Your task to perform on an android device: delete browsing data in the chrome app Image 0: 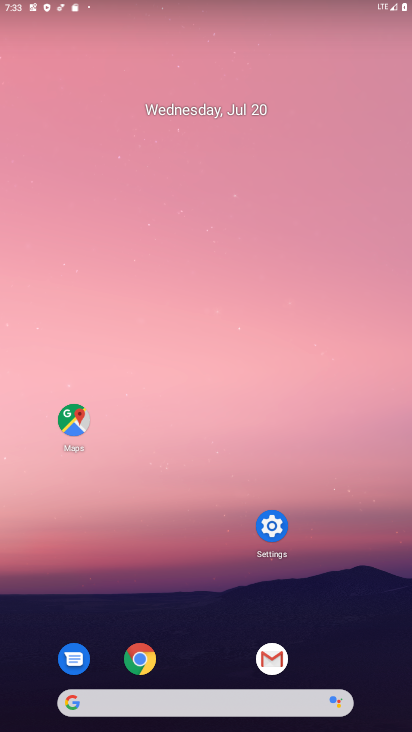
Step 0: press home button
Your task to perform on an android device: delete browsing data in the chrome app Image 1: 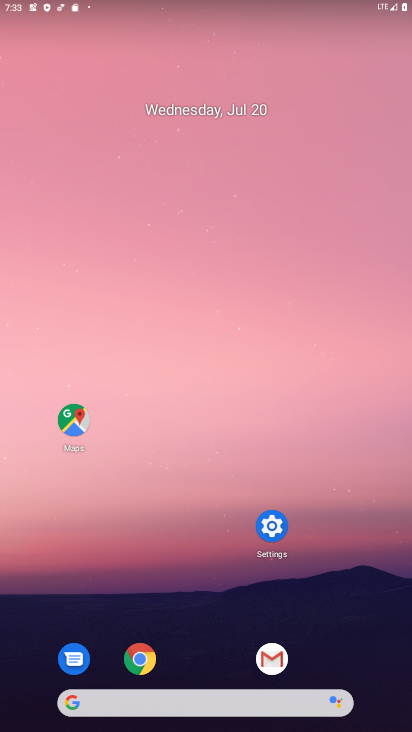
Step 1: click (138, 659)
Your task to perform on an android device: delete browsing data in the chrome app Image 2: 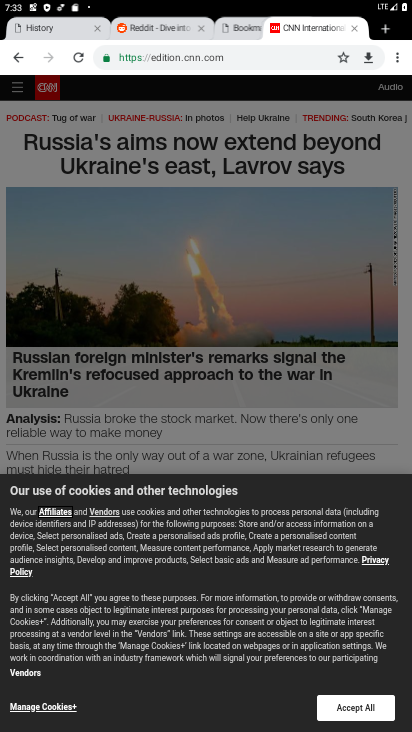
Step 2: click (392, 60)
Your task to perform on an android device: delete browsing data in the chrome app Image 3: 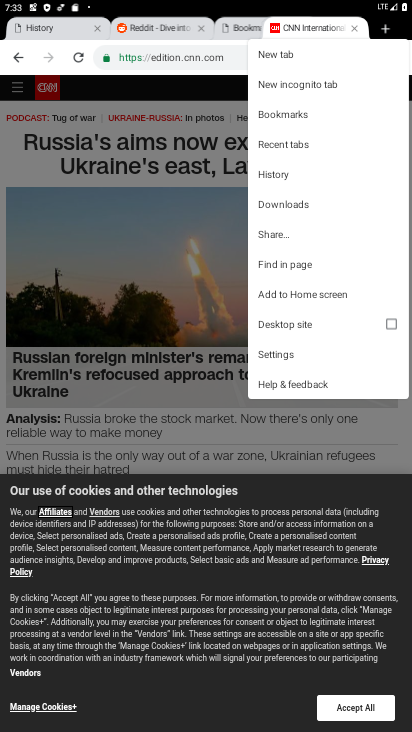
Step 3: click (279, 174)
Your task to perform on an android device: delete browsing data in the chrome app Image 4: 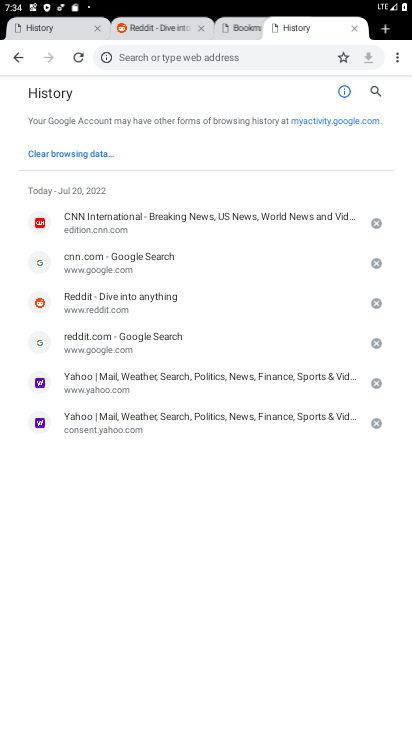
Step 4: click (74, 150)
Your task to perform on an android device: delete browsing data in the chrome app Image 5: 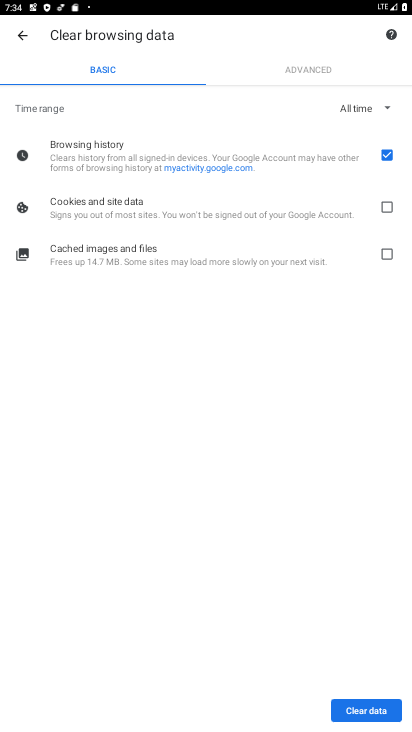
Step 5: click (357, 707)
Your task to perform on an android device: delete browsing data in the chrome app Image 6: 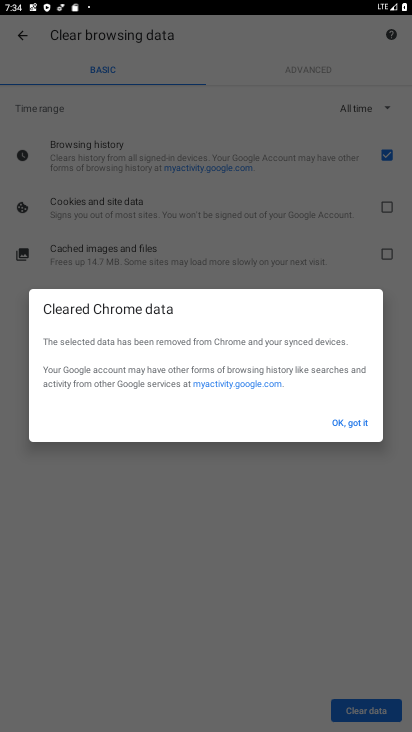
Step 6: task complete